Your task to perform on an android device: What's on my calendar tomorrow? Image 0: 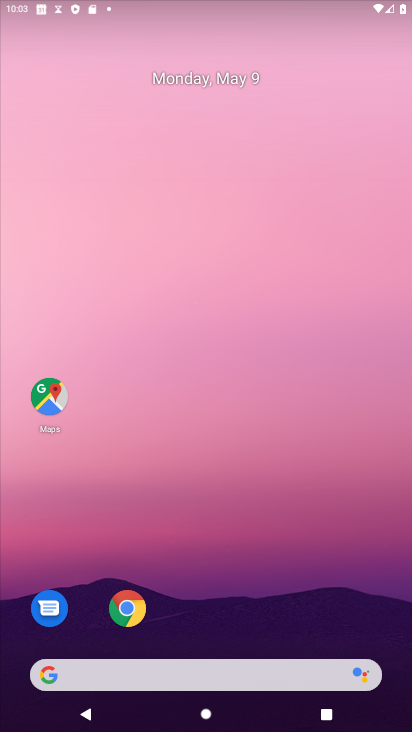
Step 0: type ""
Your task to perform on an android device: What's on my calendar tomorrow? Image 1: 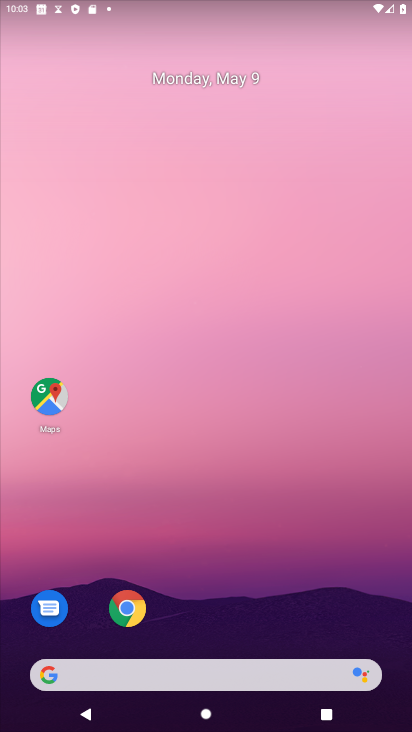
Step 1: drag from (186, 605) to (240, 50)
Your task to perform on an android device: What's on my calendar tomorrow? Image 2: 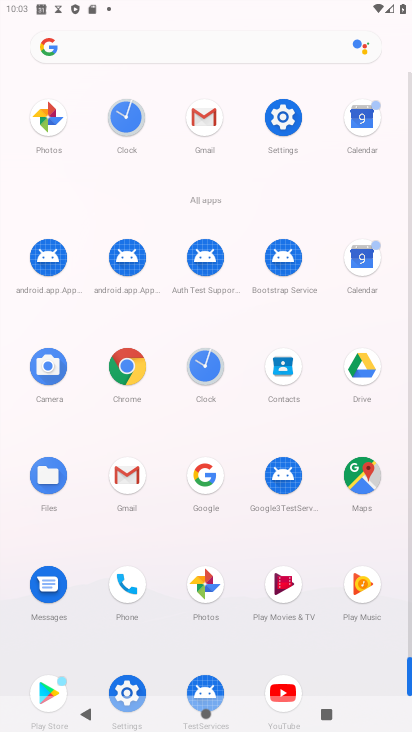
Step 2: click (370, 120)
Your task to perform on an android device: What's on my calendar tomorrow? Image 3: 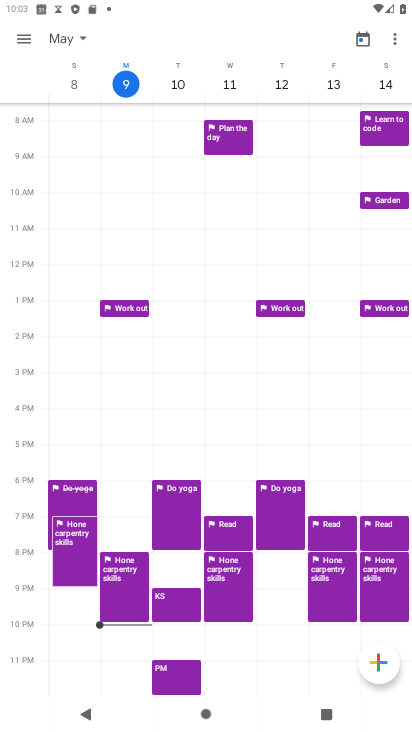
Step 3: click (180, 82)
Your task to perform on an android device: What's on my calendar tomorrow? Image 4: 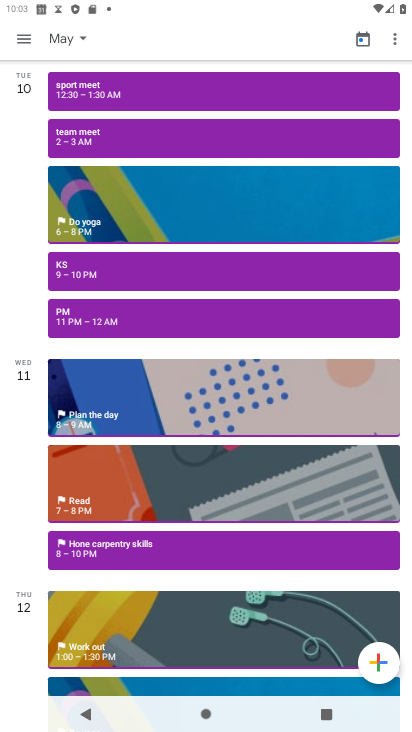
Step 4: task complete